Your task to perform on an android device: clear history in the chrome app Image 0: 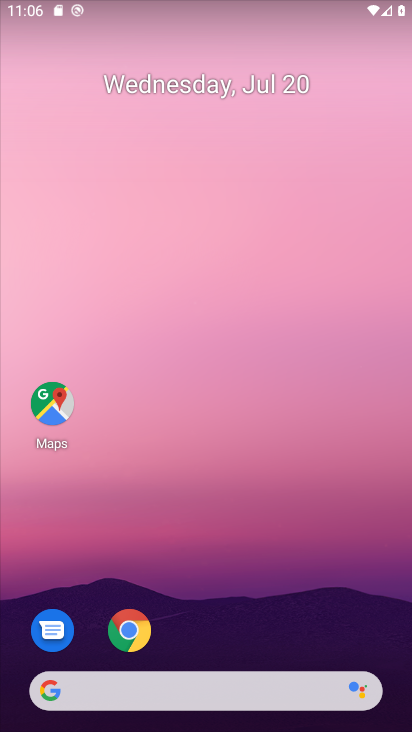
Step 0: drag from (285, 676) to (255, 233)
Your task to perform on an android device: clear history in the chrome app Image 1: 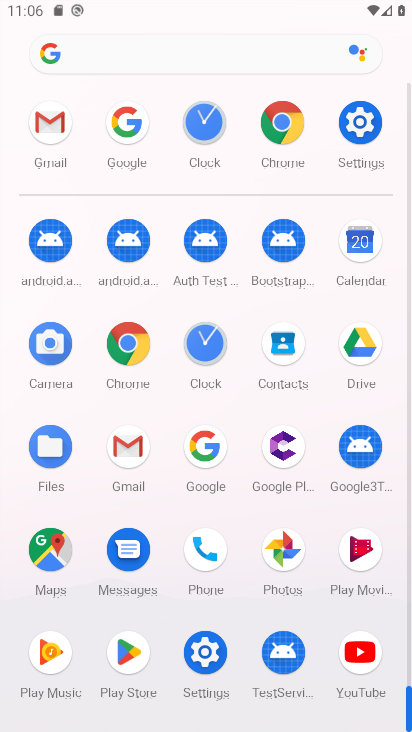
Step 1: click (272, 121)
Your task to perform on an android device: clear history in the chrome app Image 2: 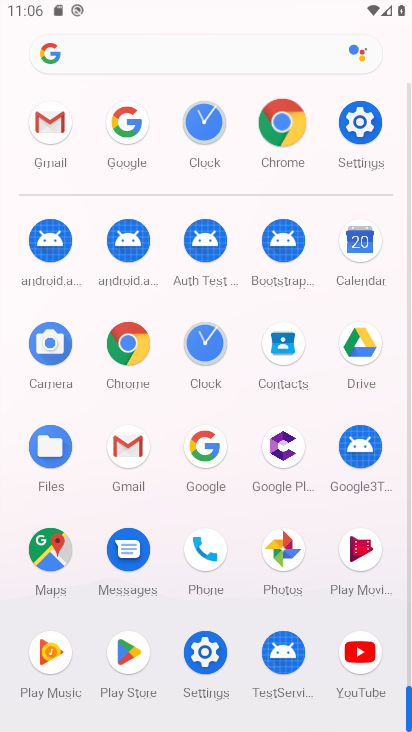
Step 2: click (278, 126)
Your task to perform on an android device: clear history in the chrome app Image 3: 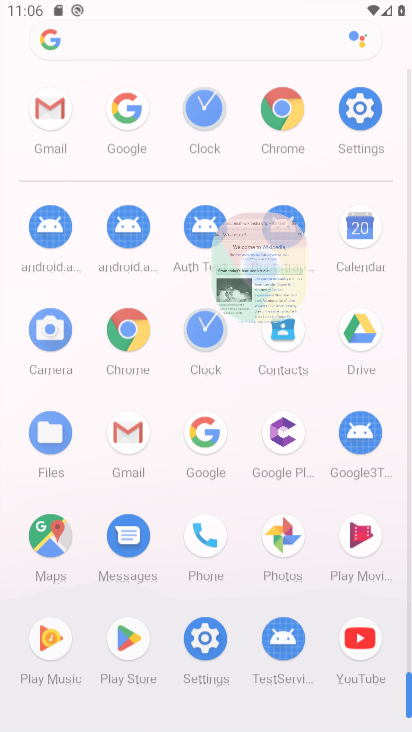
Step 3: click (281, 128)
Your task to perform on an android device: clear history in the chrome app Image 4: 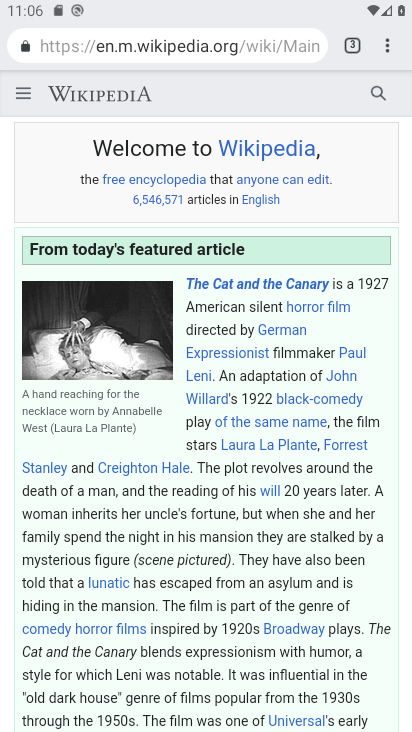
Step 4: drag from (391, 47) to (216, 259)
Your task to perform on an android device: clear history in the chrome app Image 5: 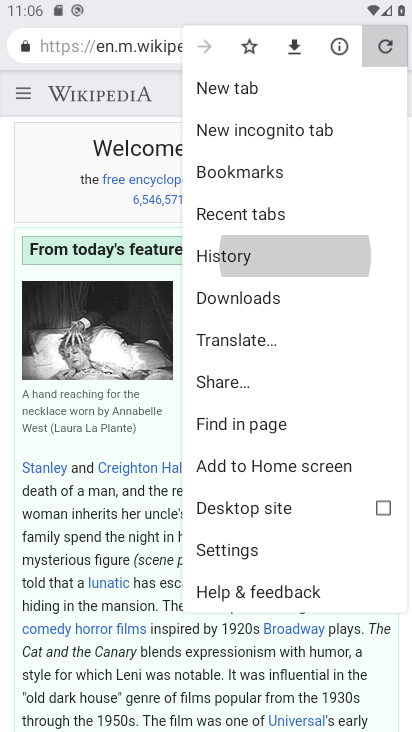
Step 5: click (222, 258)
Your task to perform on an android device: clear history in the chrome app Image 6: 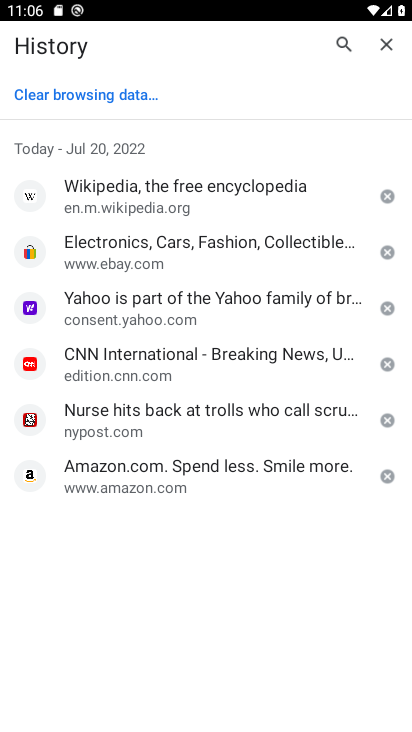
Step 6: click (80, 94)
Your task to perform on an android device: clear history in the chrome app Image 7: 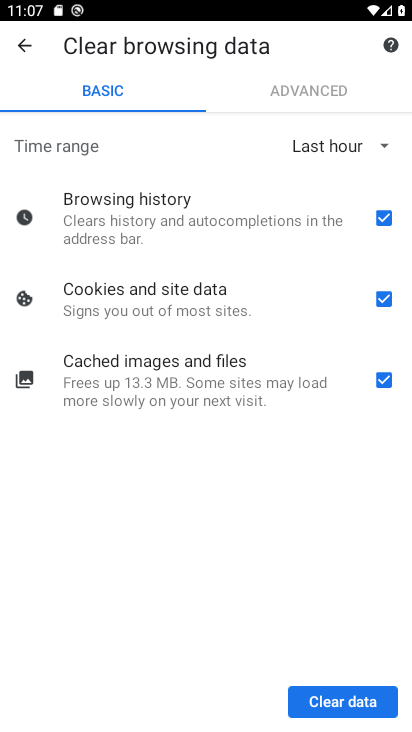
Step 7: click (347, 712)
Your task to perform on an android device: clear history in the chrome app Image 8: 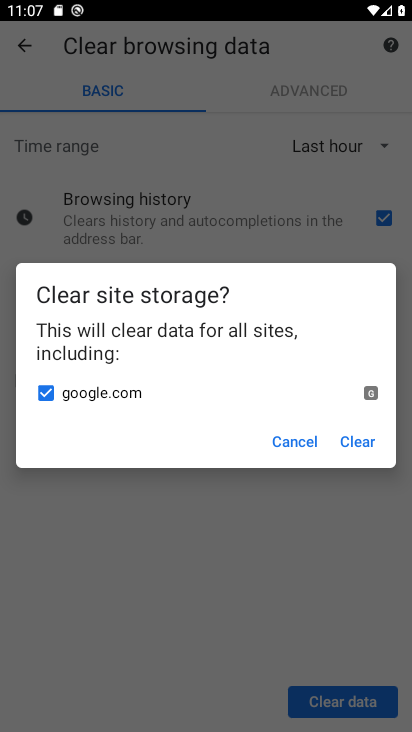
Step 8: task complete